Your task to perform on an android device: Open Yahoo.com Image 0: 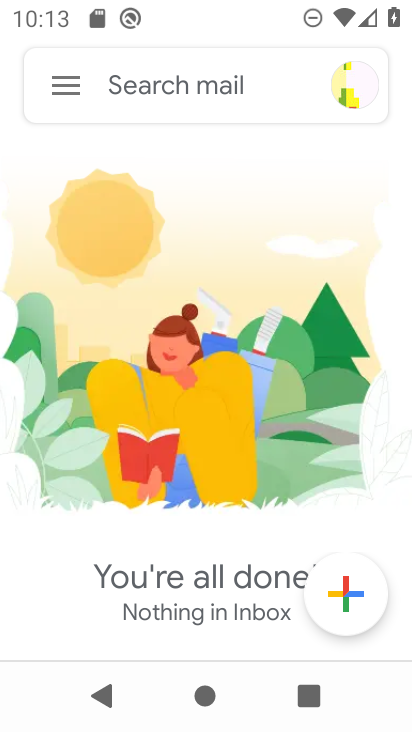
Step 0: press home button
Your task to perform on an android device: Open Yahoo.com Image 1: 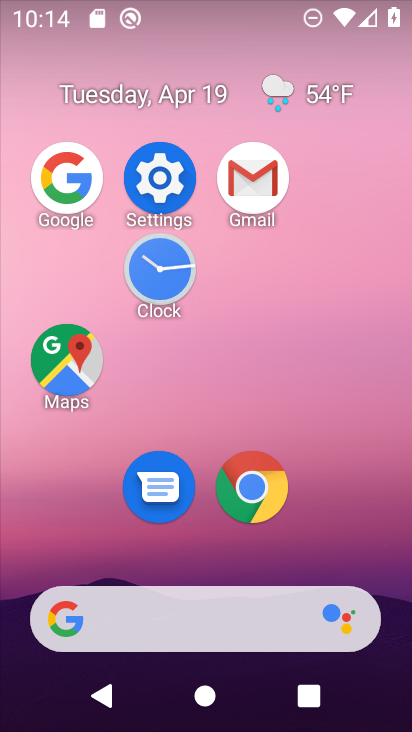
Step 1: click (263, 486)
Your task to perform on an android device: Open Yahoo.com Image 2: 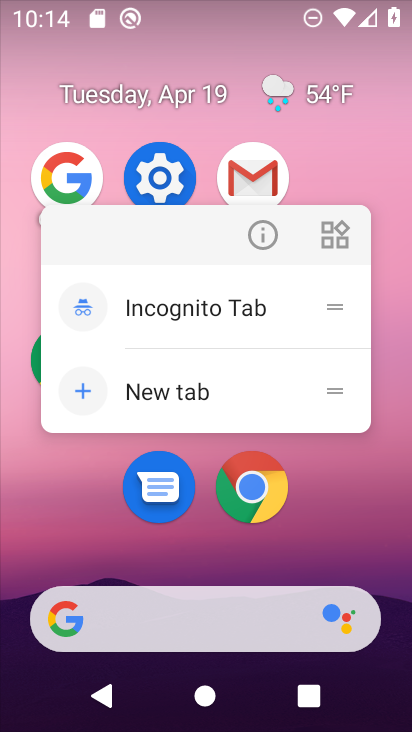
Step 2: click (263, 486)
Your task to perform on an android device: Open Yahoo.com Image 3: 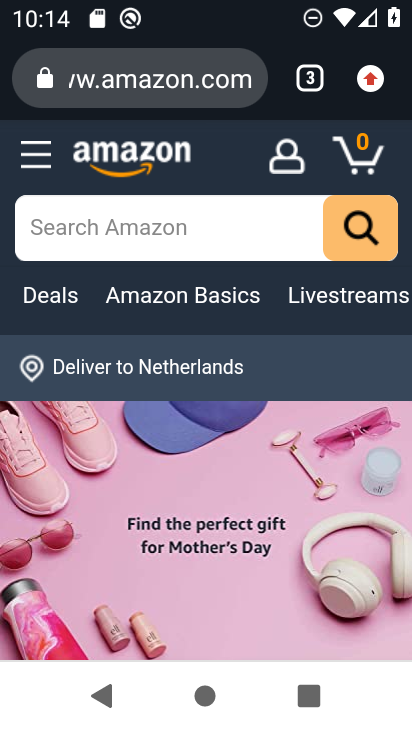
Step 3: click (302, 81)
Your task to perform on an android device: Open Yahoo.com Image 4: 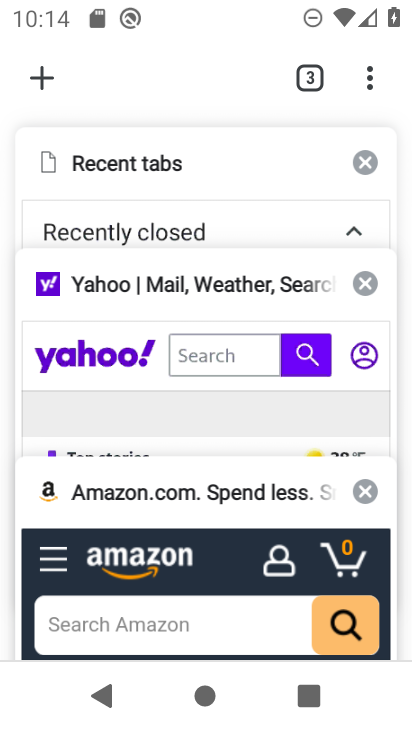
Step 4: click (39, 82)
Your task to perform on an android device: Open Yahoo.com Image 5: 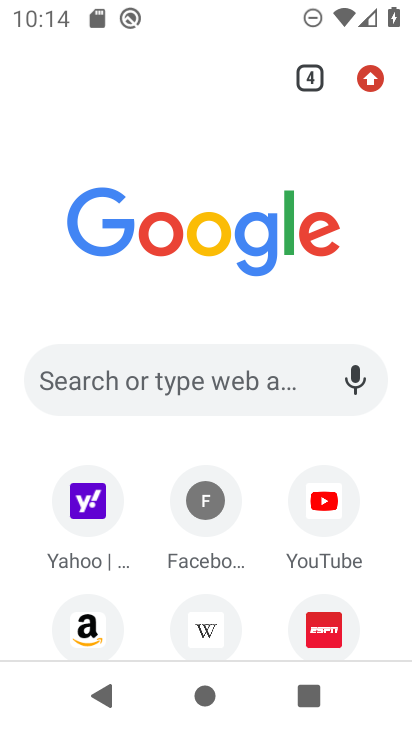
Step 5: click (80, 502)
Your task to perform on an android device: Open Yahoo.com Image 6: 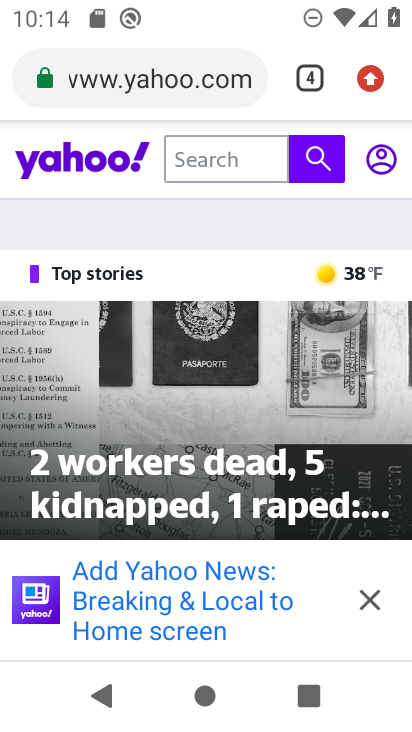
Step 6: task complete